Your task to perform on an android device: turn pop-ups off in chrome Image 0: 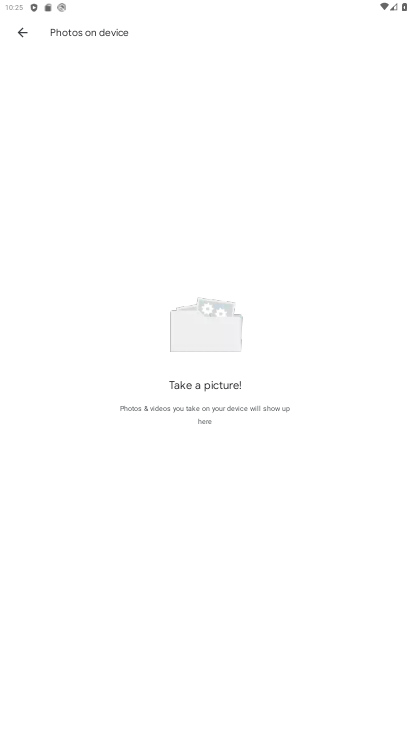
Step 0: press home button
Your task to perform on an android device: turn pop-ups off in chrome Image 1: 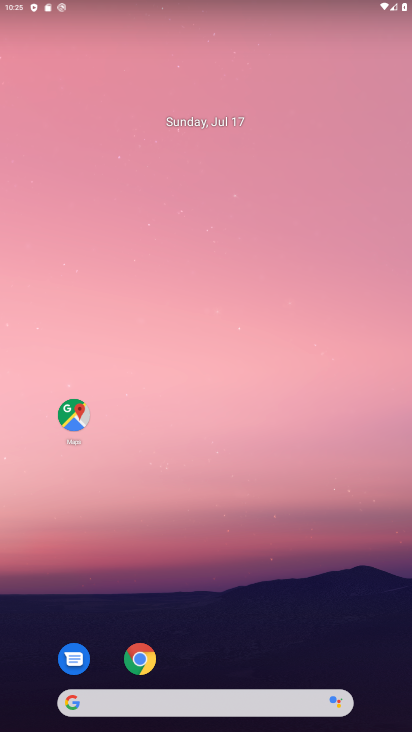
Step 1: drag from (265, 602) to (260, 108)
Your task to perform on an android device: turn pop-ups off in chrome Image 2: 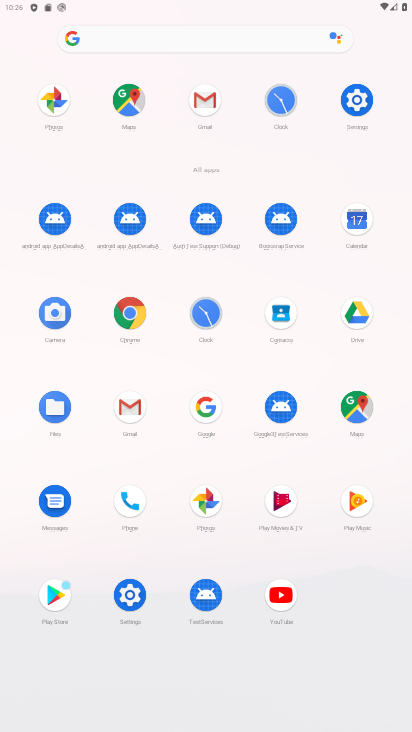
Step 2: click (133, 306)
Your task to perform on an android device: turn pop-ups off in chrome Image 3: 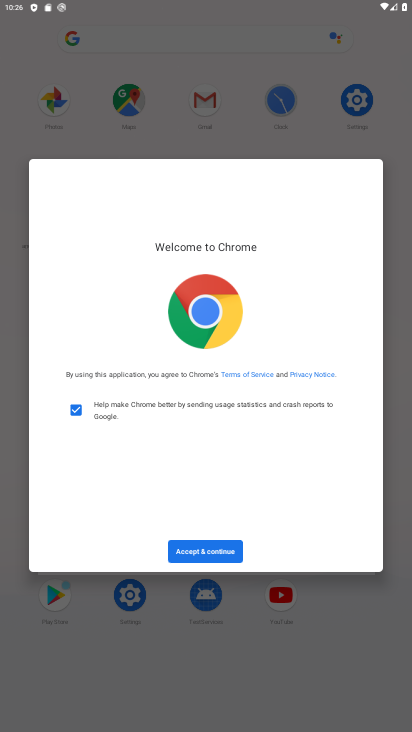
Step 3: click (230, 547)
Your task to perform on an android device: turn pop-ups off in chrome Image 4: 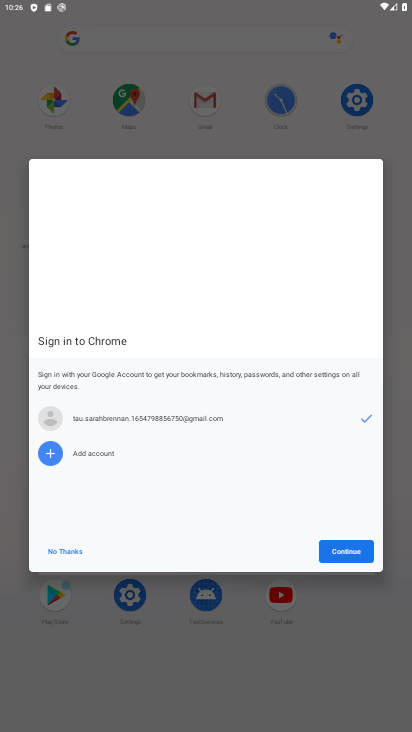
Step 4: click (336, 553)
Your task to perform on an android device: turn pop-ups off in chrome Image 5: 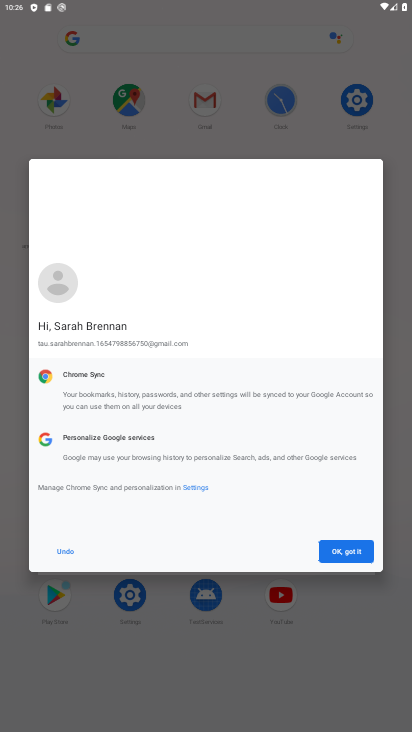
Step 5: click (333, 550)
Your task to perform on an android device: turn pop-ups off in chrome Image 6: 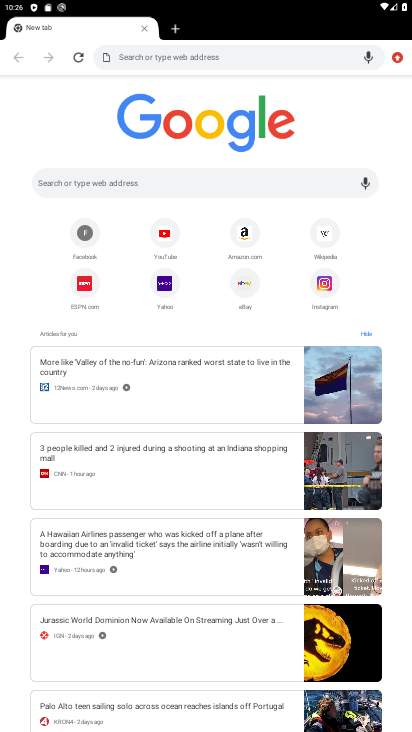
Step 6: drag from (407, 48) to (318, 303)
Your task to perform on an android device: turn pop-ups off in chrome Image 7: 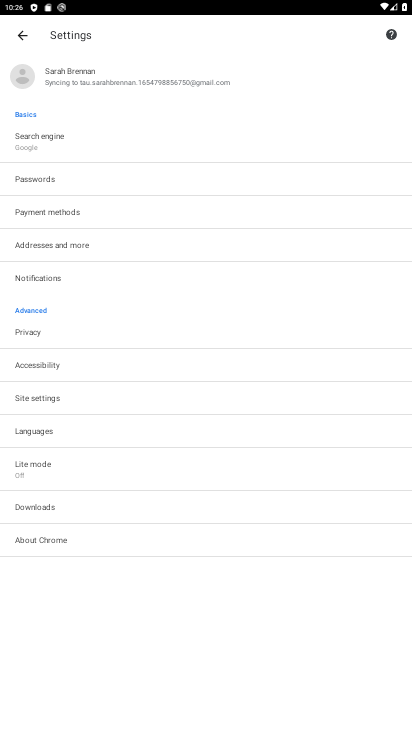
Step 7: click (70, 401)
Your task to perform on an android device: turn pop-ups off in chrome Image 8: 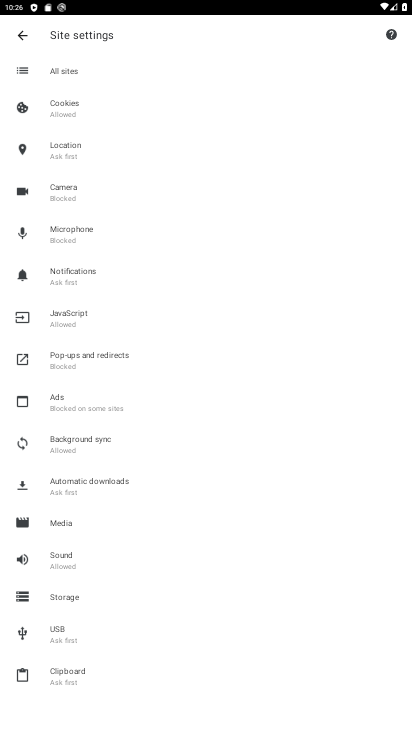
Step 8: click (84, 359)
Your task to perform on an android device: turn pop-ups off in chrome Image 9: 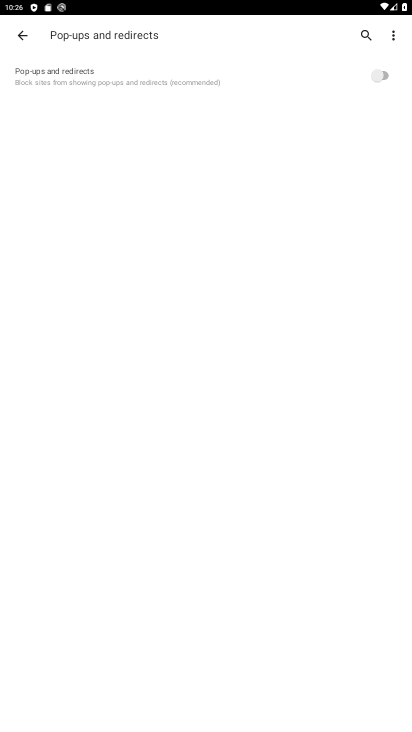
Step 9: task complete